Your task to perform on an android device: Open wifi settings Image 0: 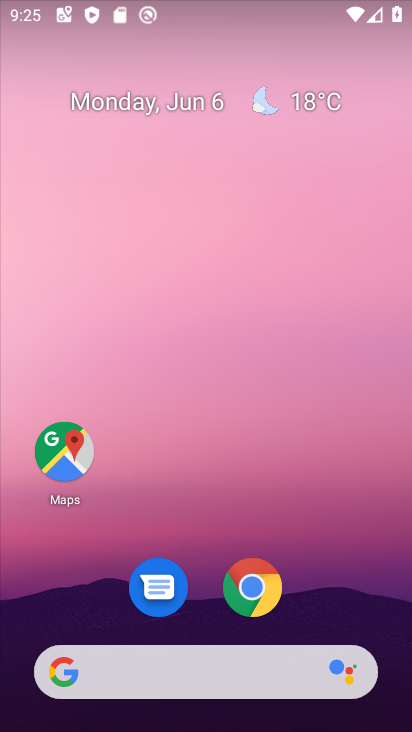
Step 0: drag from (305, 493) to (255, 106)
Your task to perform on an android device: Open wifi settings Image 1: 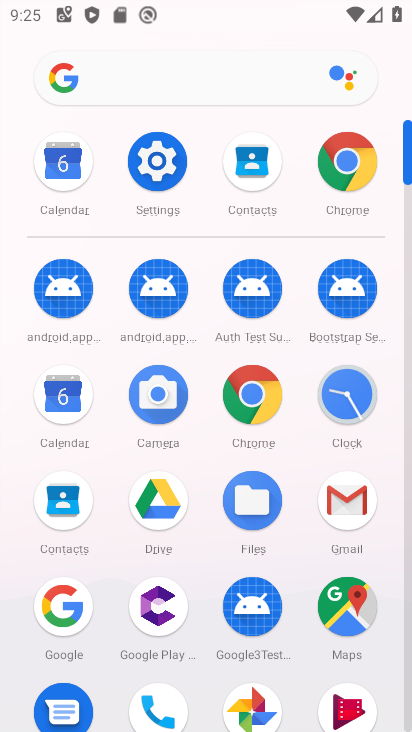
Step 1: click (153, 166)
Your task to perform on an android device: Open wifi settings Image 2: 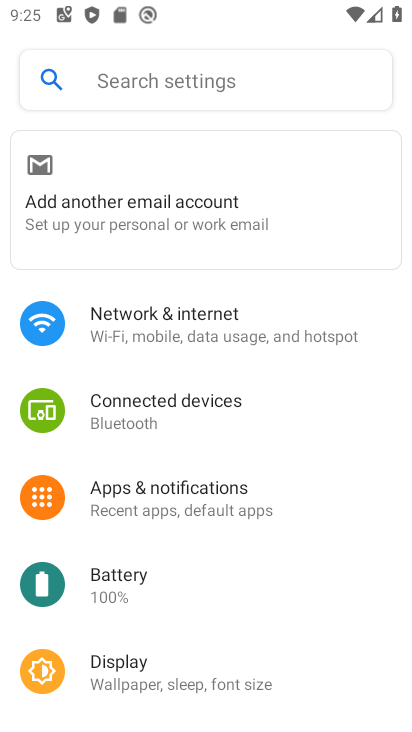
Step 2: click (125, 315)
Your task to perform on an android device: Open wifi settings Image 3: 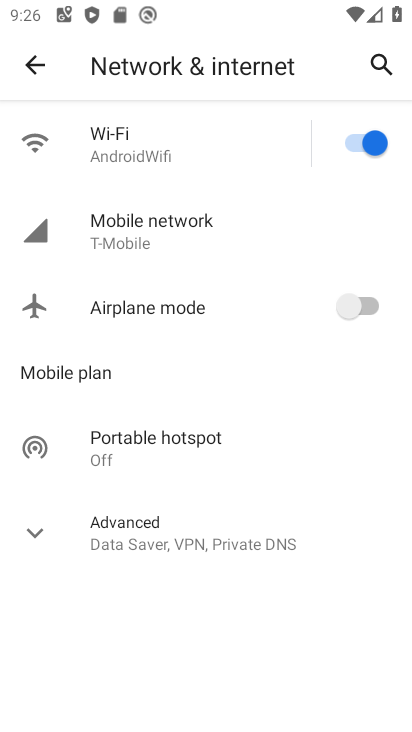
Step 3: click (164, 140)
Your task to perform on an android device: Open wifi settings Image 4: 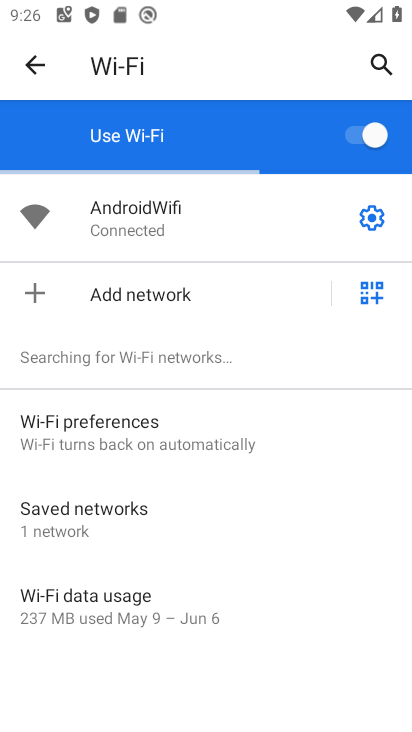
Step 4: click (381, 215)
Your task to perform on an android device: Open wifi settings Image 5: 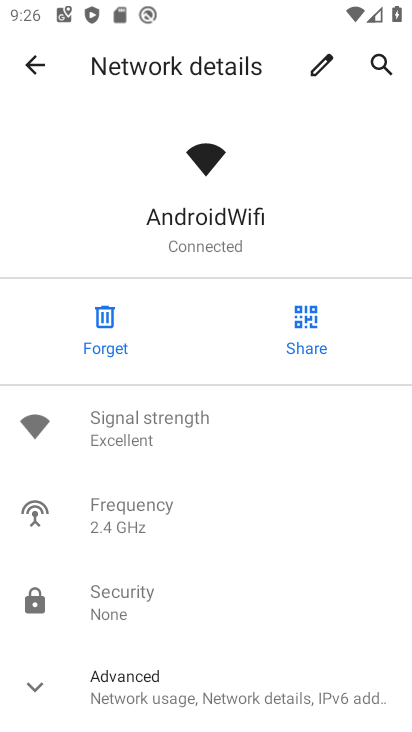
Step 5: task complete